Your task to perform on an android device: Do I have any events today? Image 0: 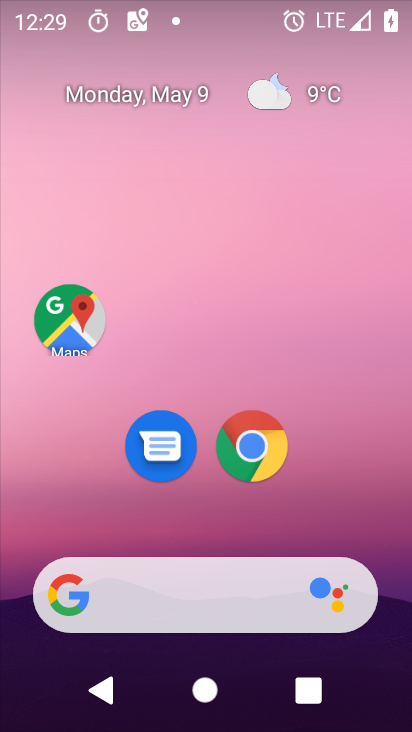
Step 0: drag from (332, 510) to (307, 1)
Your task to perform on an android device: Do I have any events today? Image 1: 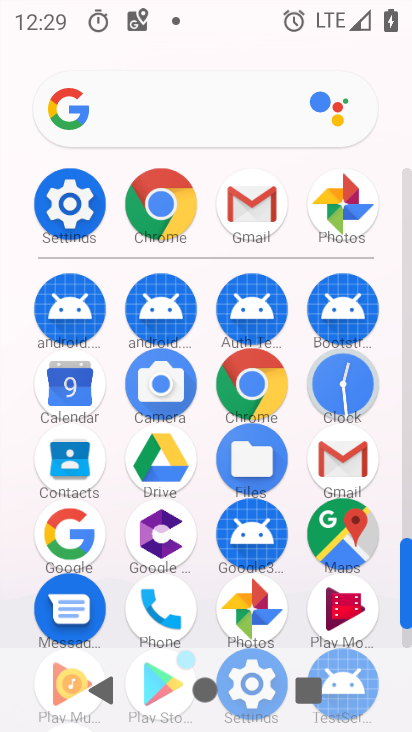
Step 1: click (57, 388)
Your task to perform on an android device: Do I have any events today? Image 2: 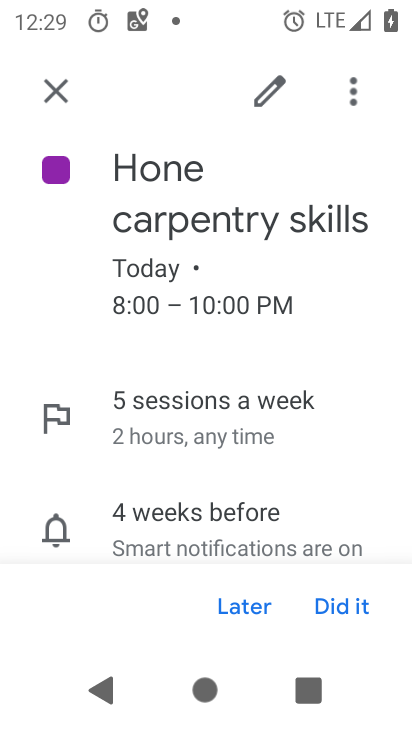
Step 2: click (61, 94)
Your task to perform on an android device: Do I have any events today? Image 3: 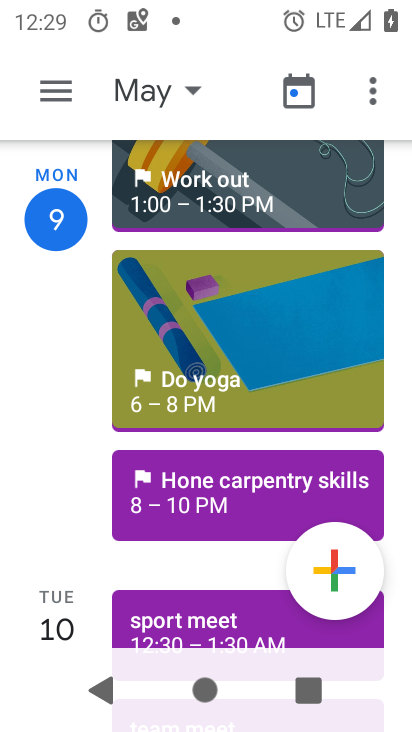
Step 3: click (215, 486)
Your task to perform on an android device: Do I have any events today? Image 4: 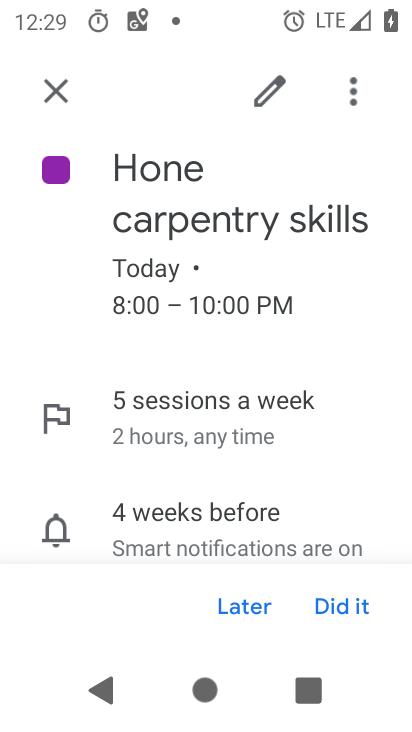
Step 4: task complete